Your task to perform on an android device: make emails show in primary in the gmail app Image 0: 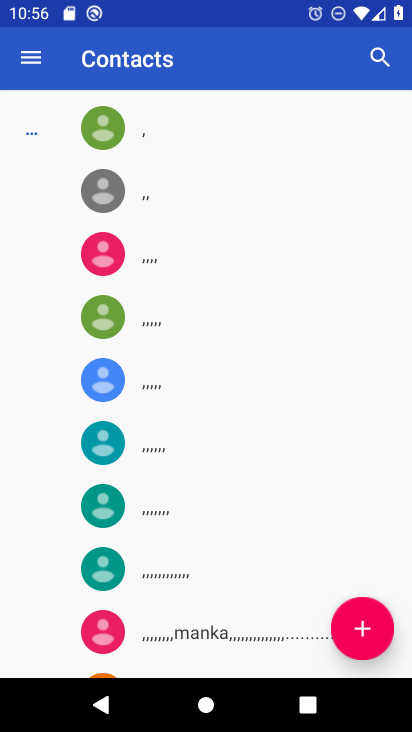
Step 0: press home button
Your task to perform on an android device: make emails show in primary in the gmail app Image 1: 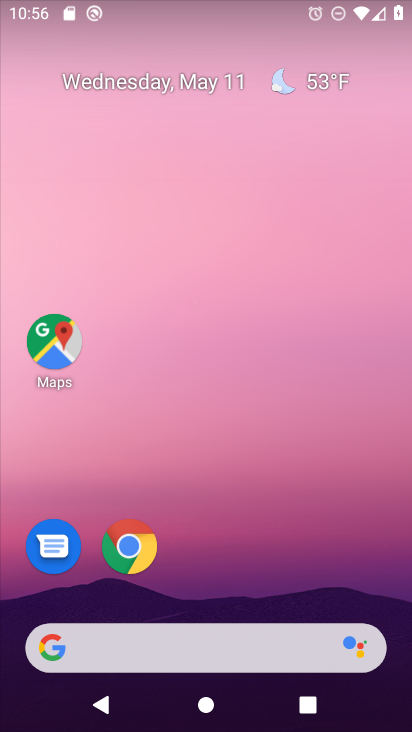
Step 1: drag from (366, 608) to (245, 52)
Your task to perform on an android device: make emails show in primary in the gmail app Image 2: 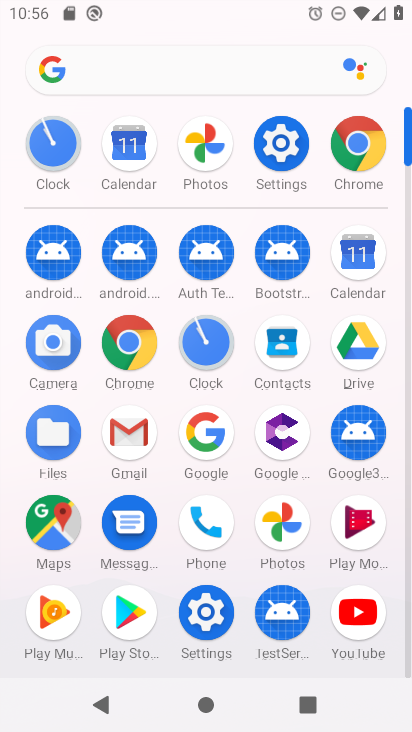
Step 2: click (140, 430)
Your task to perform on an android device: make emails show in primary in the gmail app Image 3: 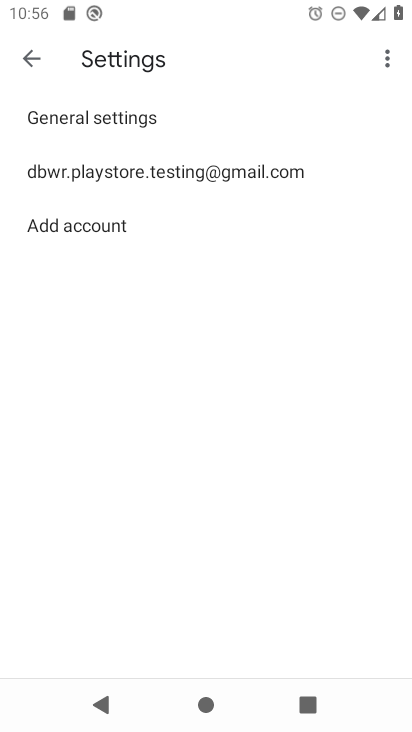
Step 3: task complete